Your task to perform on an android device: Clear the shopping cart on ebay.com. Search for logitech g502 on ebay.com, select the first entry, and add it to the cart. Image 0: 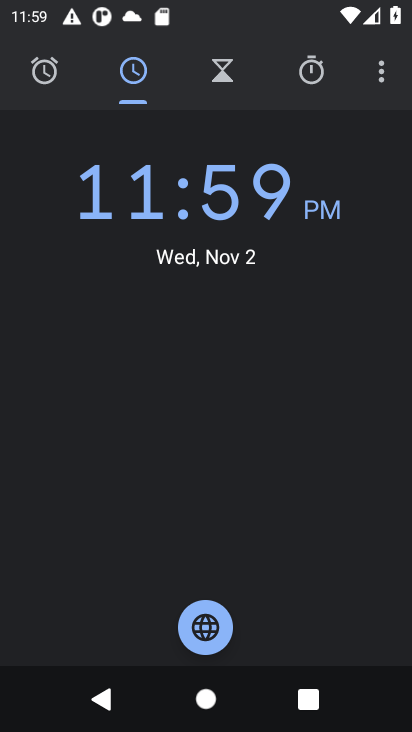
Step 0: press home button
Your task to perform on an android device: Clear the shopping cart on ebay.com. Search for logitech g502 on ebay.com, select the first entry, and add it to the cart. Image 1: 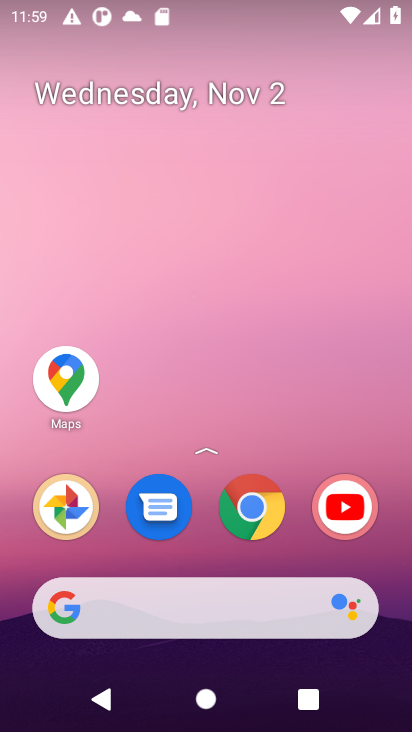
Step 1: click (212, 619)
Your task to perform on an android device: Clear the shopping cart on ebay.com. Search for logitech g502 on ebay.com, select the first entry, and add it to the cart. Image 2: 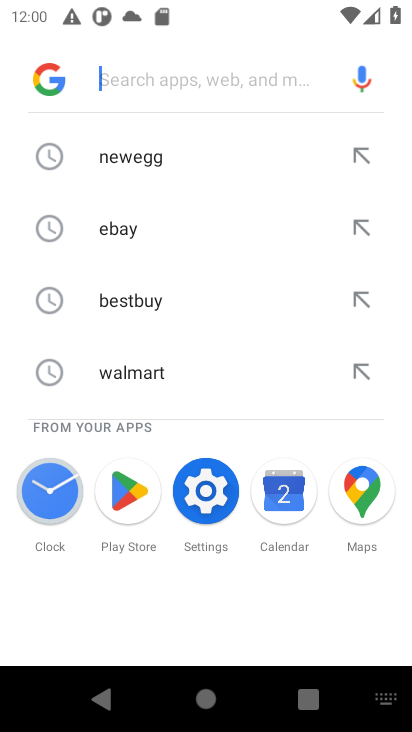
Step 2: click (113, 223)
Your task to perform on an android device: Clear the shopping cart on ebay.com. Search for logitech g502 on ebay.com, select the first entry, and add it to the cart. Image 3: 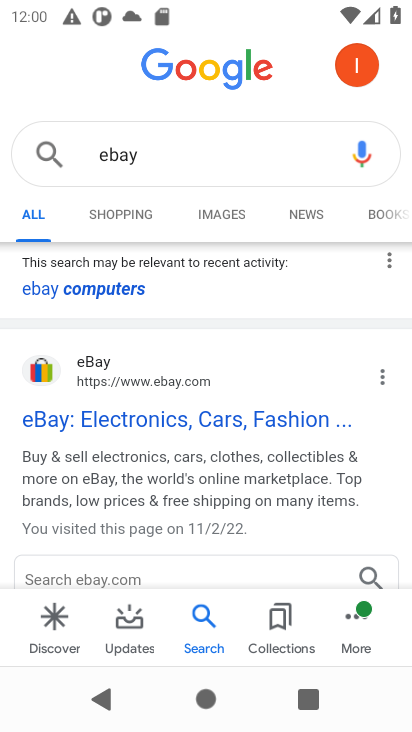
Step 3: click (187, 430)
Your task to perform on an android device: Clear the shopping cart on ebay.com. Search for logitech g502 on ebay.com, select the first entry, and add it to the cart. Image 4: 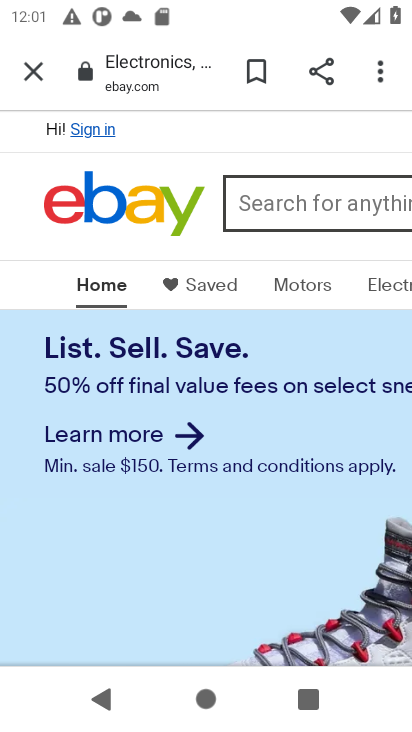
Step 4: click (243, 223)
Your task to perform on an android device: Clear the shopping cart on ebay.com. Search for logitech g502 on ebay.com, select the first entry, and add it to the cart. Image 5: 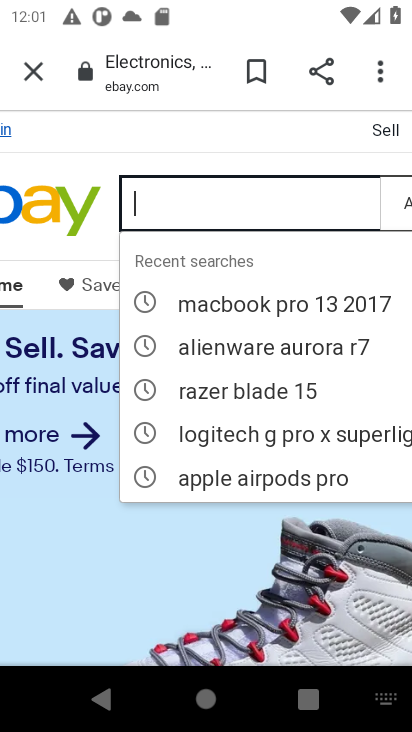
Step 5: type "logitech g502"
Your task to perform on an android device: Clear the shopping cart on ebay.com. Search for logitech g502 on ebay.com, select the first entry, and add it to the cart. Image 6: 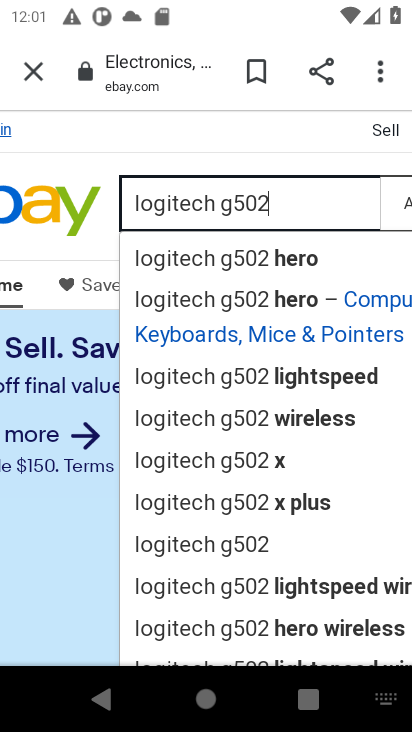
Step 6: click (264, 247)
Your task to perform on an android device: Clear the shopping cart on ebay.com. Search for logitech g502 on ebay.com, select the first entry, and add it to the cart. Image 7: 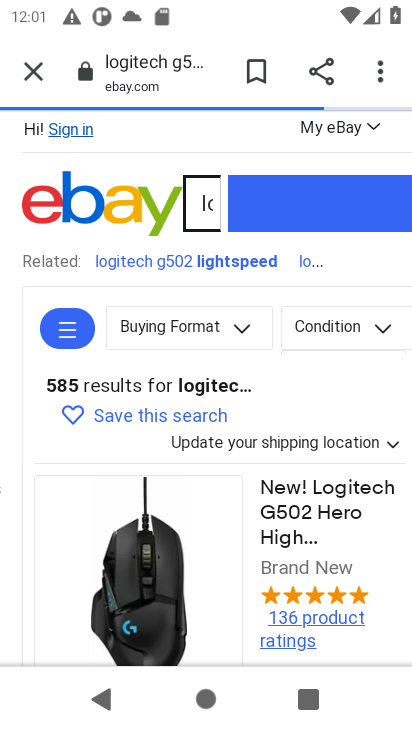
Step 7: click (291, 531)
Your task to perform on an android device: Clear the shopping cart on ebay.com. Search for logitech g502 on ebay.com, select the first entry, and add it to the cart. Image 8: 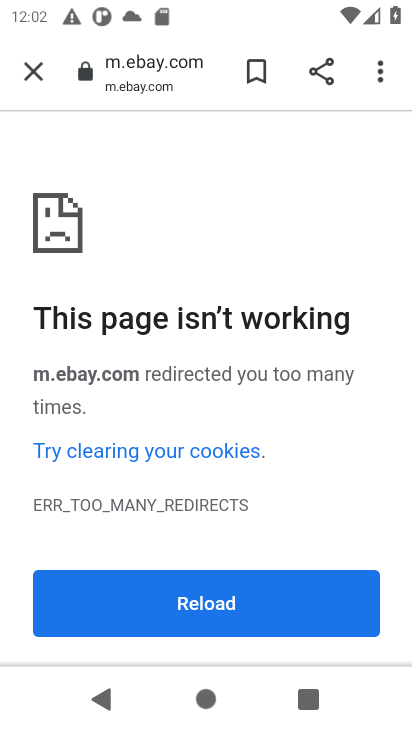
Step 8: task complete